Your task to perform on an android device: Go to accessibility settings Image 0: 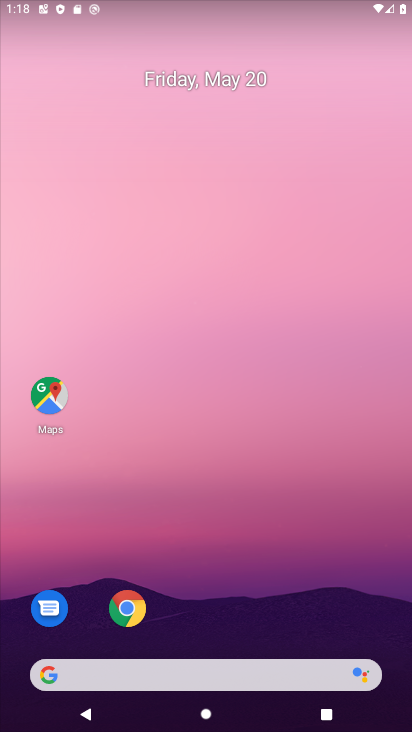
Step 0: drag from (196, 582) to (239, 105)
Your task to perform on an android device: Go to accessibility settings Image 1: 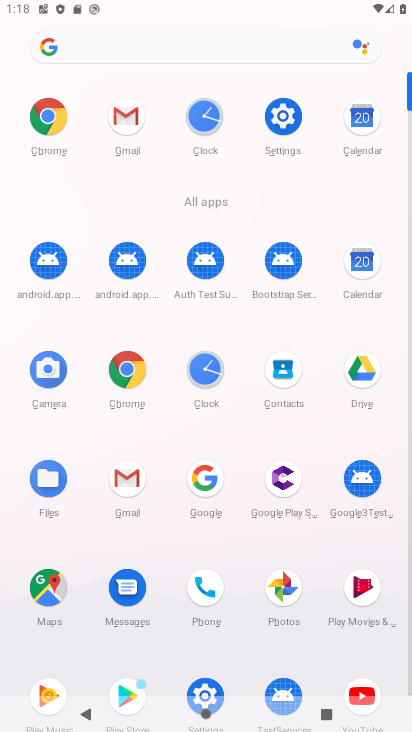
Step 1: click (283, 110)
Your task to perform on an android device: Go to accessibility settings Image 2: 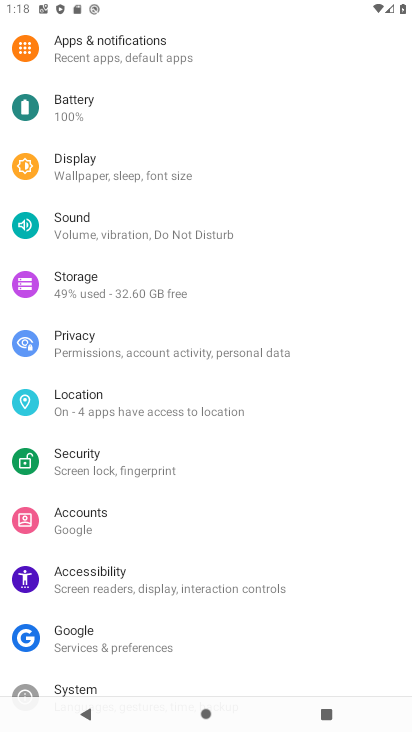
Step 2: click (150, 580)
Your task to perform on an android device: Go to accessibility settings Image 3: 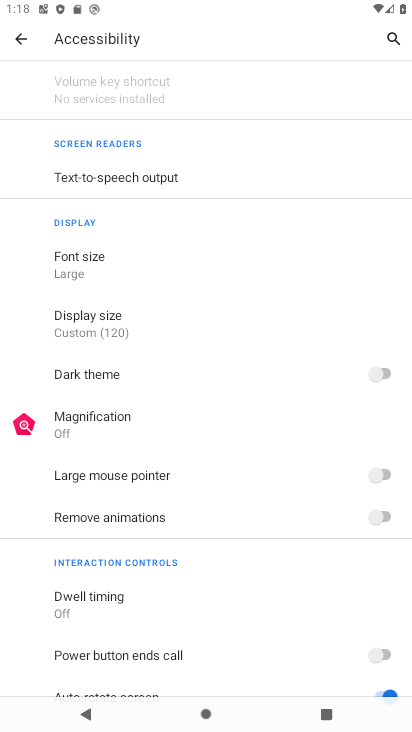
Step 3: task complete